Your task to perform on an android device: empty trash in google photos Image 0: 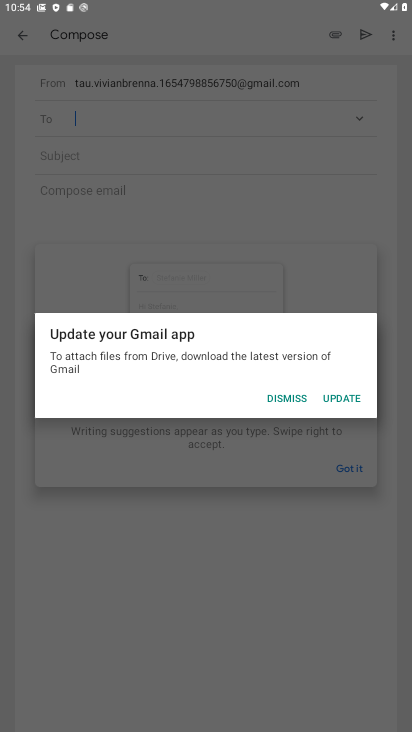
Step 0: click (277, 396)
Your task to perform on an android device: empty trash in google photos Image 1: 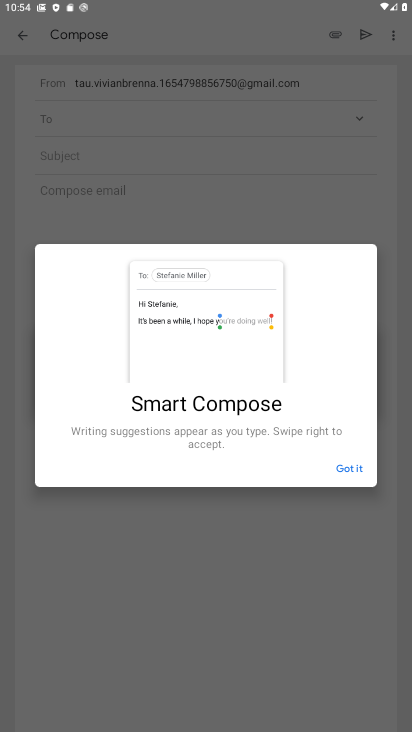
Step 1: click (354, 466)
Your task to perform on an android device: empty trash in google photos Image 2: 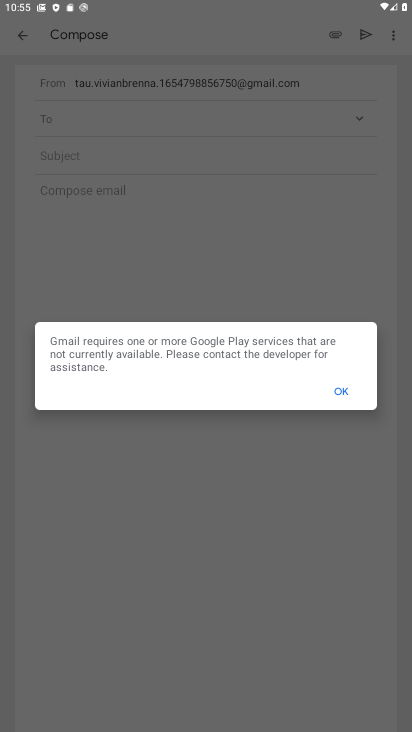
Step 2: click (343, 396)
Your task to perform on an android device: empty trash in google photos Image 3: 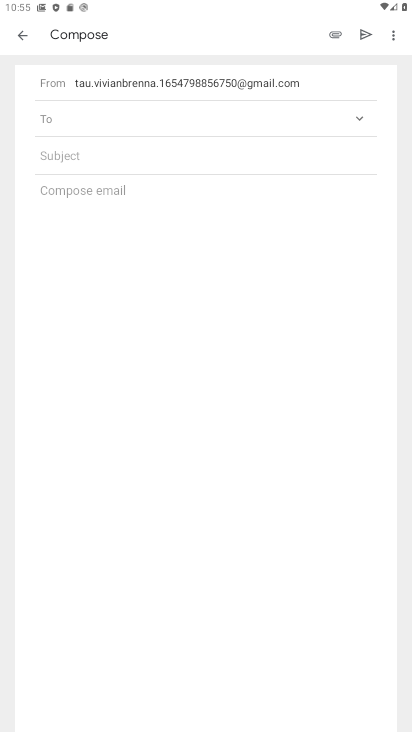
Step 3: press home button
Your task to perform on an android device: empty trash in google photos Image 4: 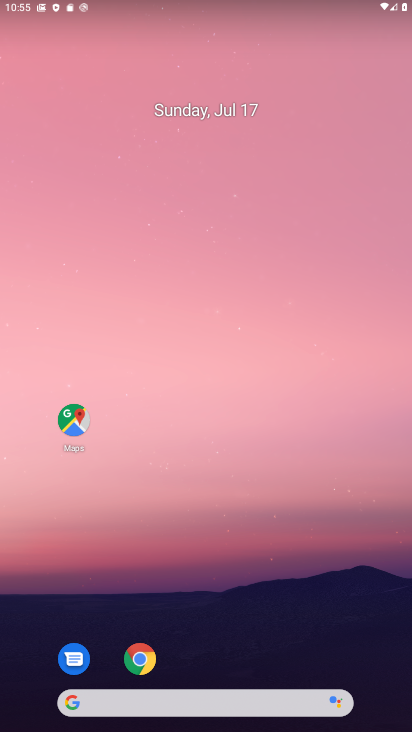
Step 4: drag from (227, 624) to (248, 346)
Your task to perform on an android device: empty trash in google photos Image 5: 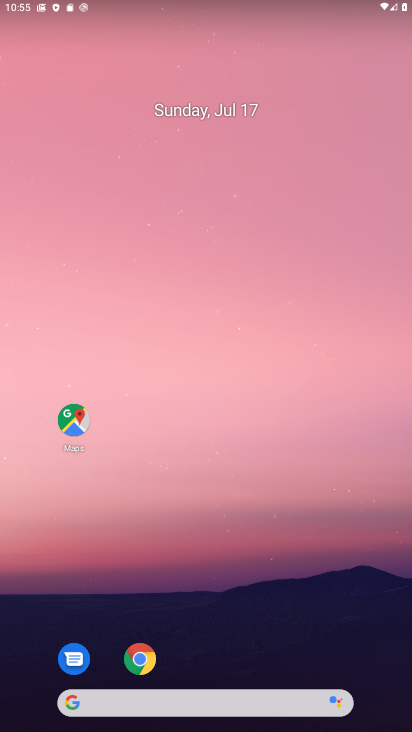
Step 5: drag from (234, 288) to (255, 100)
Your task to perform on an android device: empty trash in google photos Image 6: 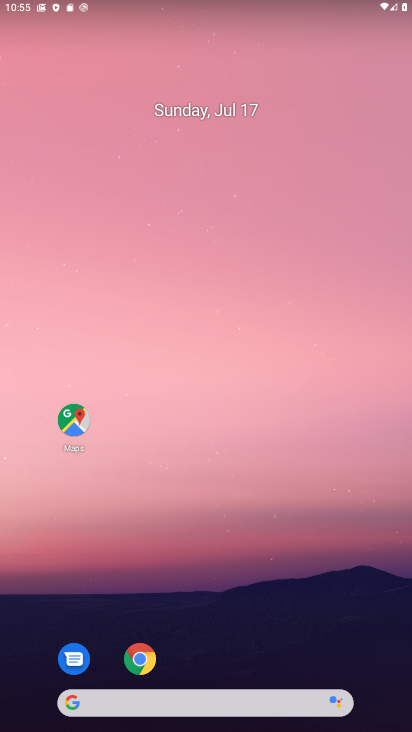
Step 6: drag from (215, 563) to (212, 6)
Your task to perform on an android device: empty trash in google photos Image 7: 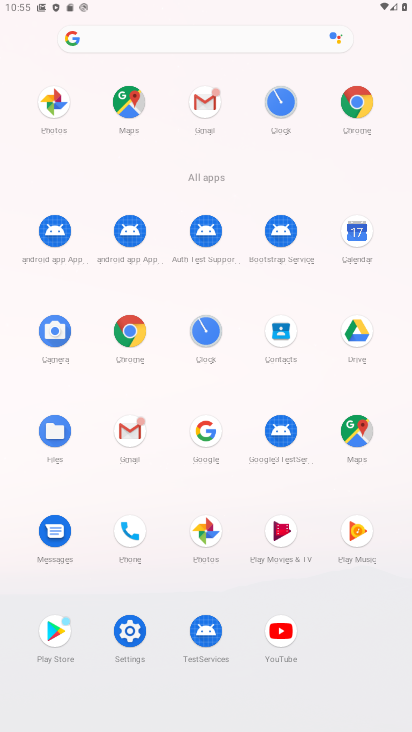
Step 7: click (206, 527)
Your task to perform on an android device: empty trash in google photos Image 8: 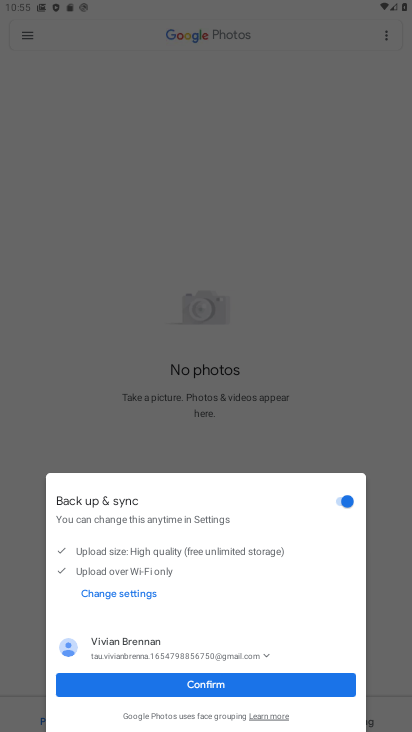
Step 8: click (261, 387)
Your task to perform on an android device: empty trash in google photos Image 9: 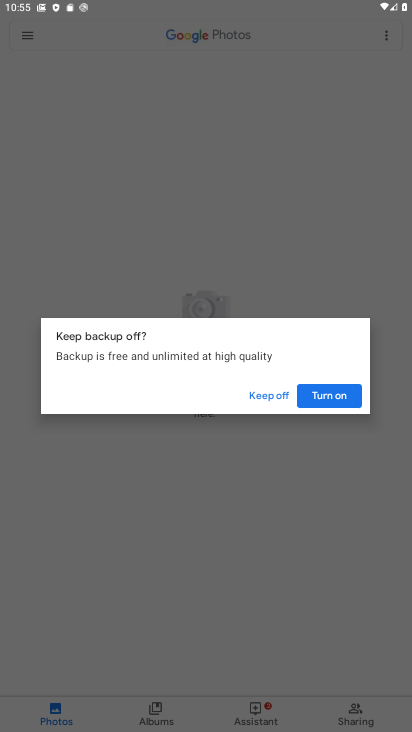
Step 9: click (257, 398)
Your task to perform on an android device: empty trash in google photos Image 10: 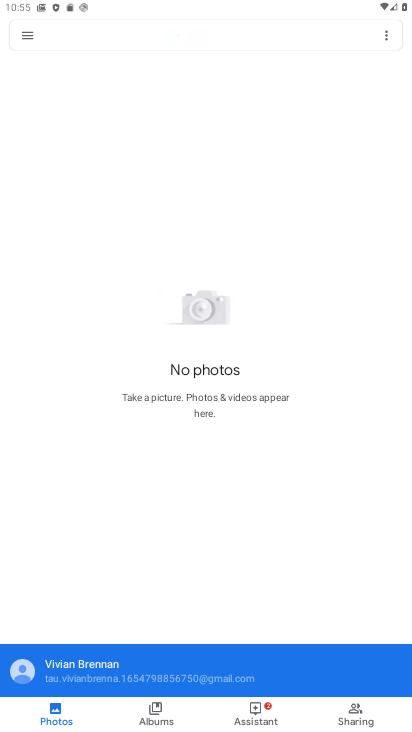
Step 10: click (149, 709)
Your task to perform on an android device: empty trash in google photos Image 11: 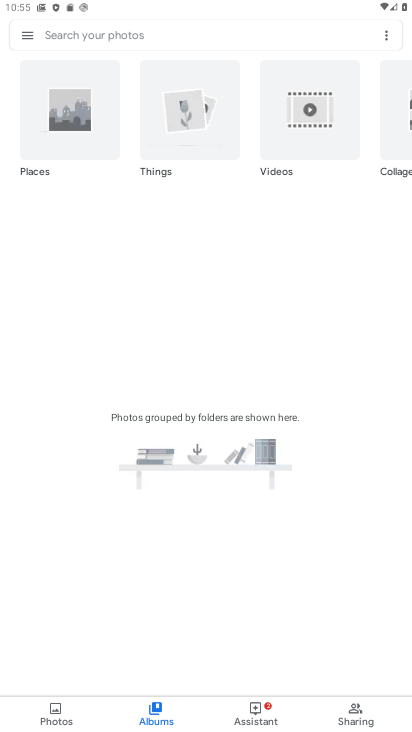
Step 11: click (53, 719)
Your task to perform on an android device: empty trash in google photos Image 12: 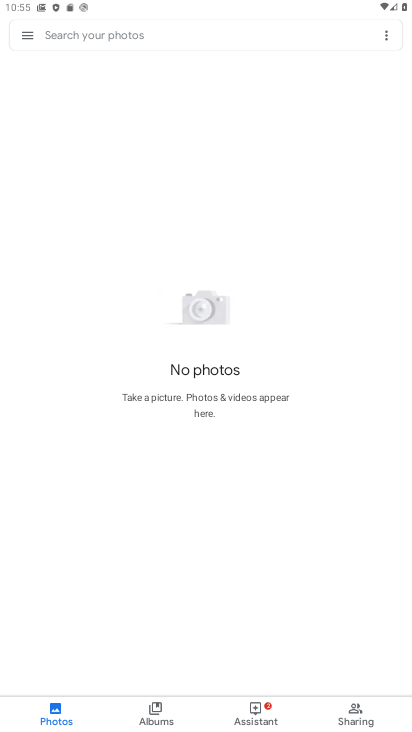
Step 12: click (23, 30)
Your task to perform on an android device: empty trash in google photos Image 13: 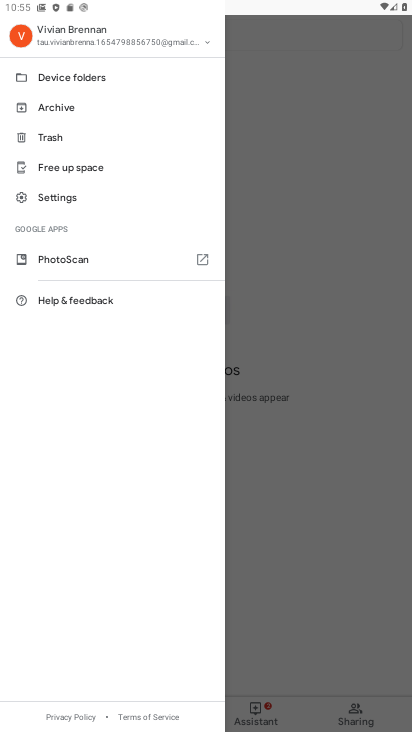
Step 13: click (53, 132)
Your task to perform on an android device: empty trash in google photos Image 14: 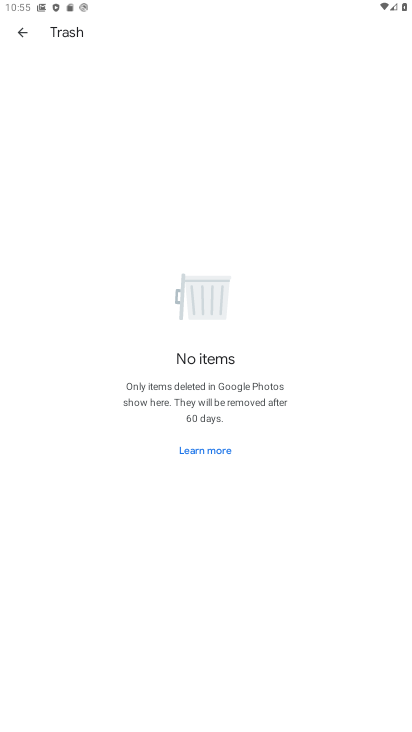
Step 14: task complete